Your task to perform on an android device: Go to wifi settings Image 0: 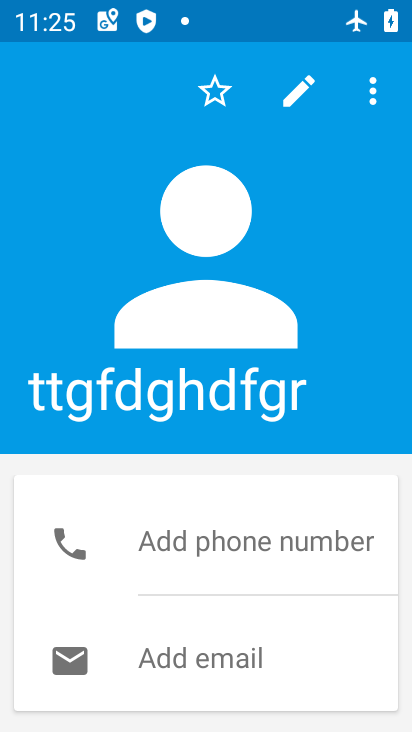
Step 0: press home button
Your task to perform on an android device: Go to wifi settings Image 1: 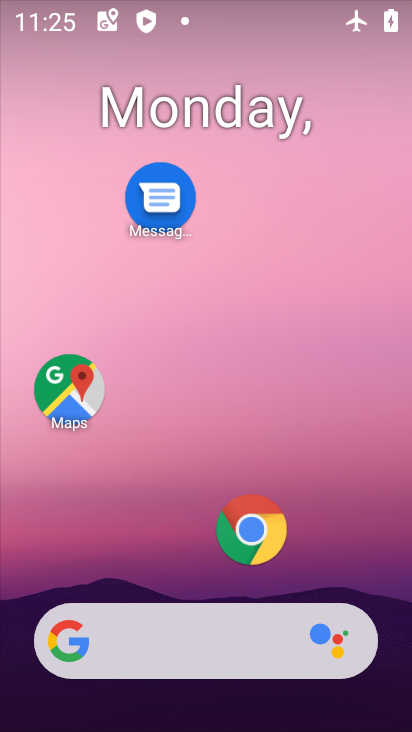
Step 1: drag from (164, 575) to (335, 45)
Your task to perform on an android device: Go to wifi settings Image 2: 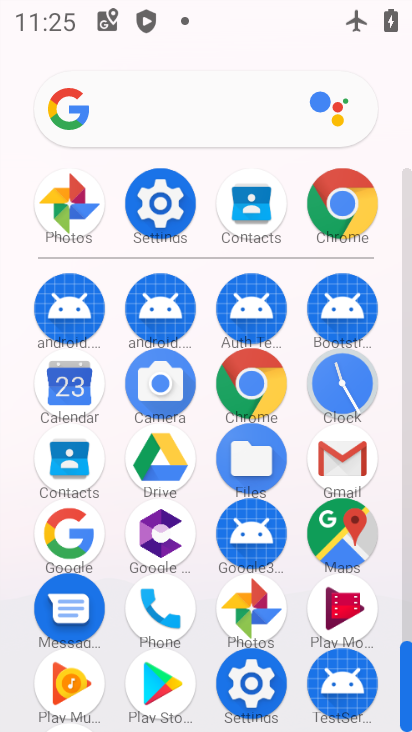
Step 2: click (254, 694)
Your task to perform on an android device: Go to wifi settings Image 3: 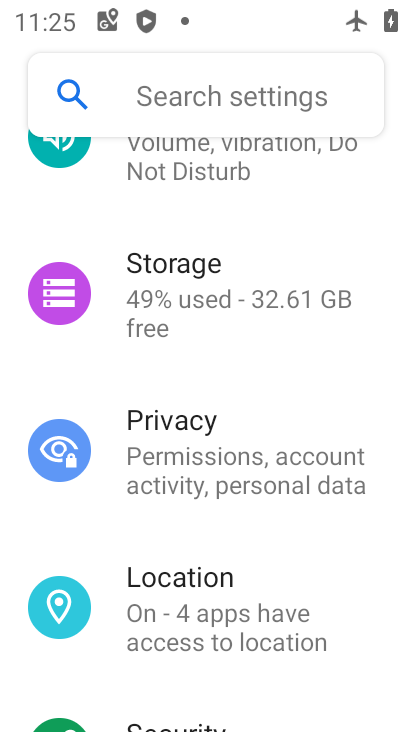
Step 3: drag from (309, 200) to (226, 720)
Your task to perform on an android device: Go to wifi settings Image 4: 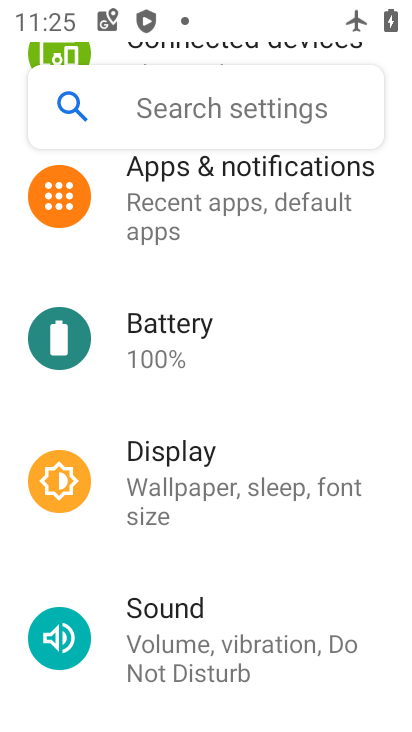
Step 4: drag from (267, 258) to (282, 728)
Your task to perform on an android device: Go to wifi settings Image 5: 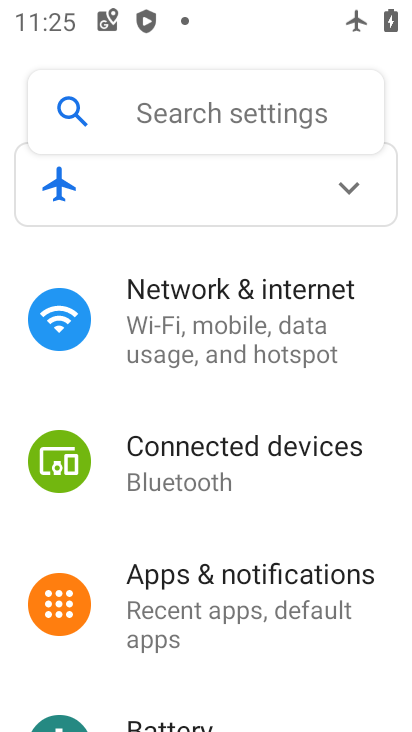
Step 5: click (251, 353)
Your task to perform on an android device: Go to wifi settings Image 6: 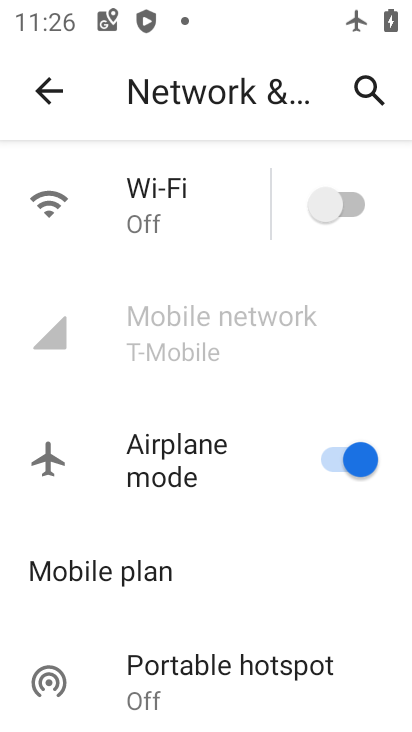
Step 6: click (181, 212)
Your task to perform on an android device: Go to wifi settings Image 7: 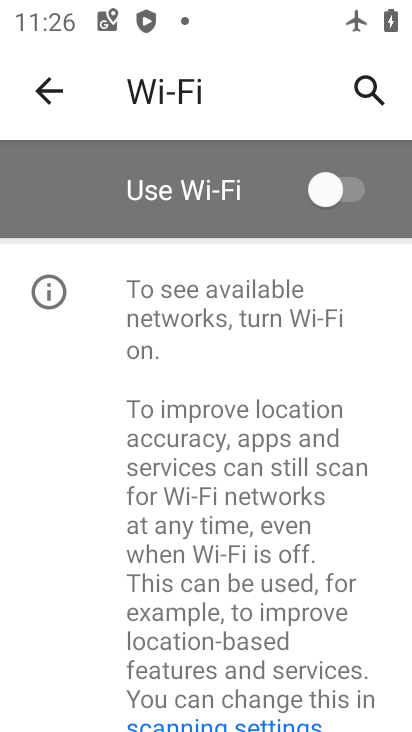
Step 7: task complete